Your task to perform on an android device: Open my contact list Image 0: 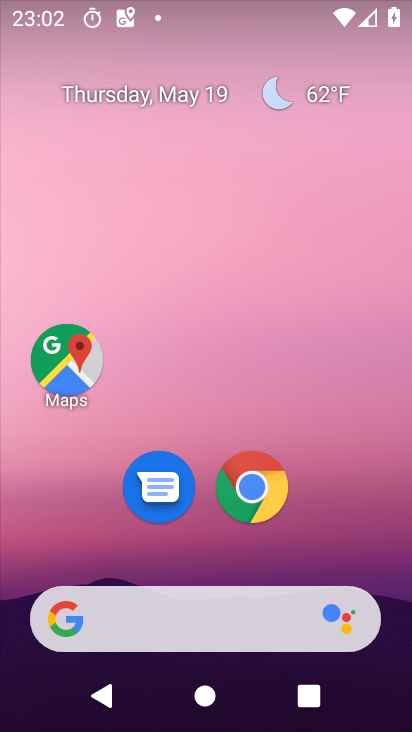
Step 0: drag from (300, 565) to (285, 172)
Your task to perform on an android device: Open my contact list Image 1: 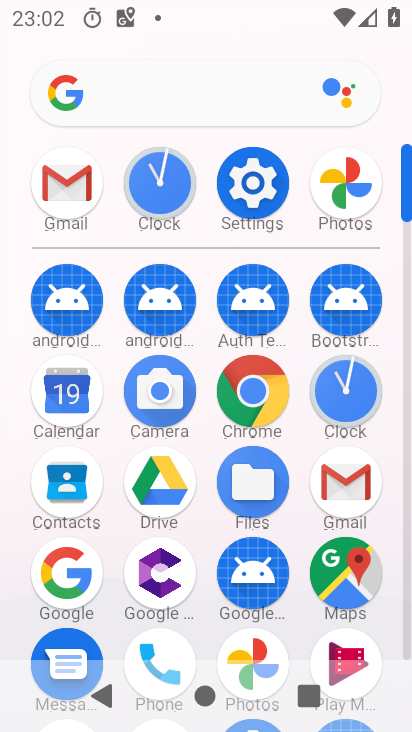
Step 1: drag from (211, 613) to (195, 338)
Your task to perform on an android device: Open my contact list Image 2: 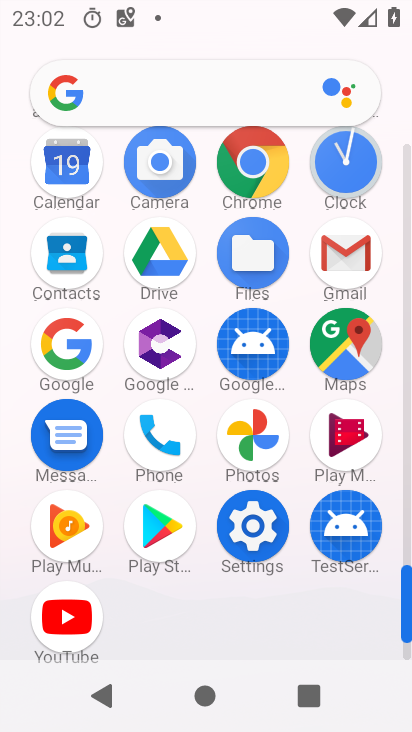
Step 2: click (75, 261)
Your task to perform on an android device: Open my contact list Image 3: 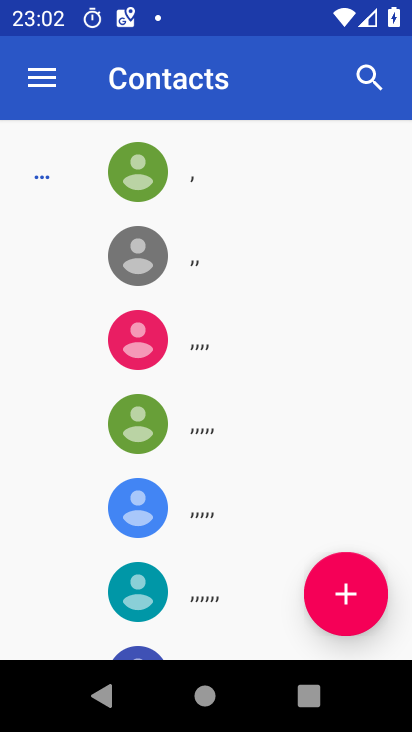
Step 3: task complete